Your task to perform on an android device: Go to notification settings Image 0: 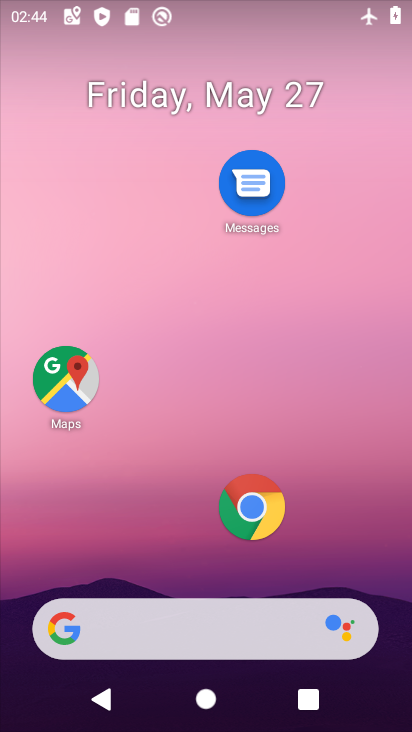
Step 0: drag from (195, 562) to (198, 86)
Your task to perform on an android device: Go to notification settings Image 1: 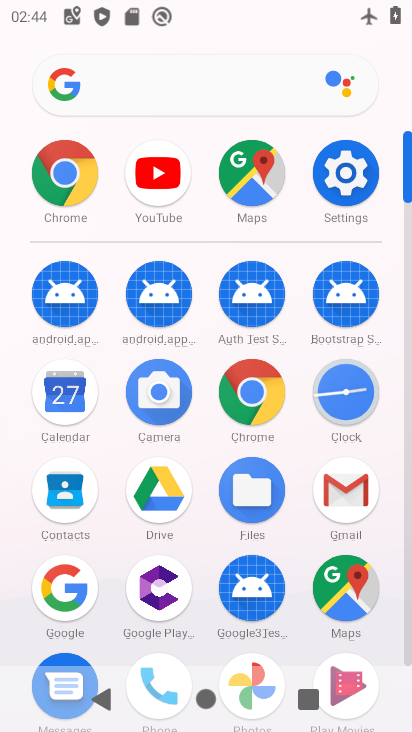
Step 1: drag from (198, 651) to (182, 212)
Your task to perform on an android device: Go to notification settings Image 2: 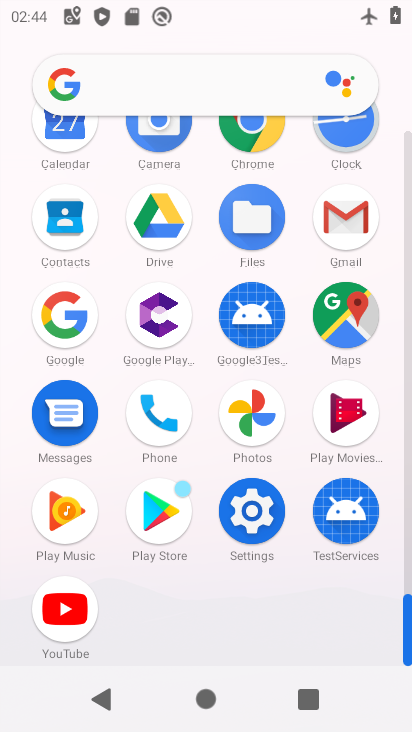
Step 2: click (244, 488)
Your task to perform on an android device: Go to notification settings Image 3: 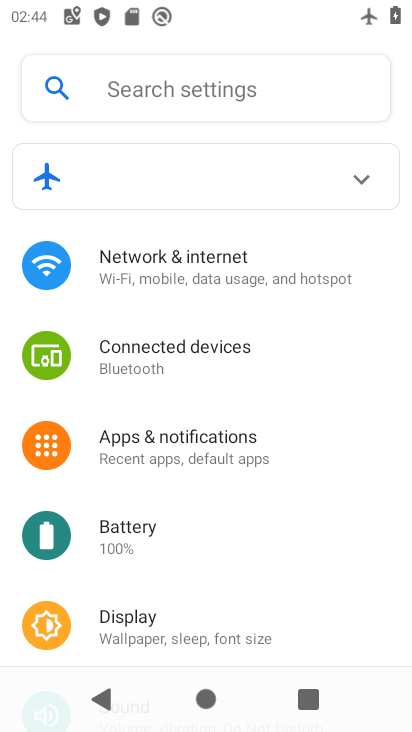
Step 3: drag from (222, 637) to (273, 145)
Your task to perform on an android device: Go to notification settings Image 4: 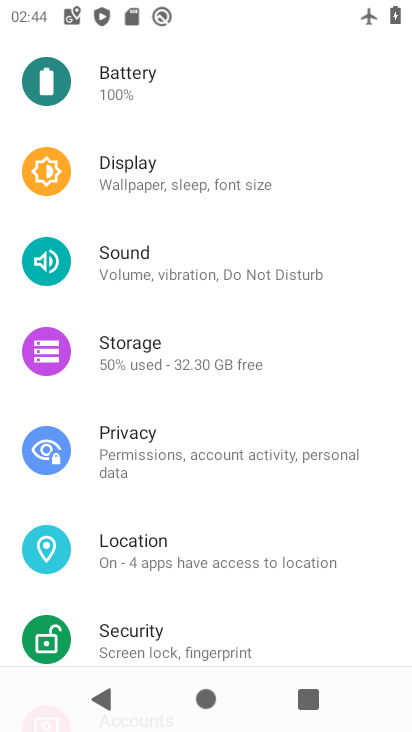
Step 4: drag from (170, 502) to (258, 65)
Your task to perform on an android device: Go to notification settings Image 5: 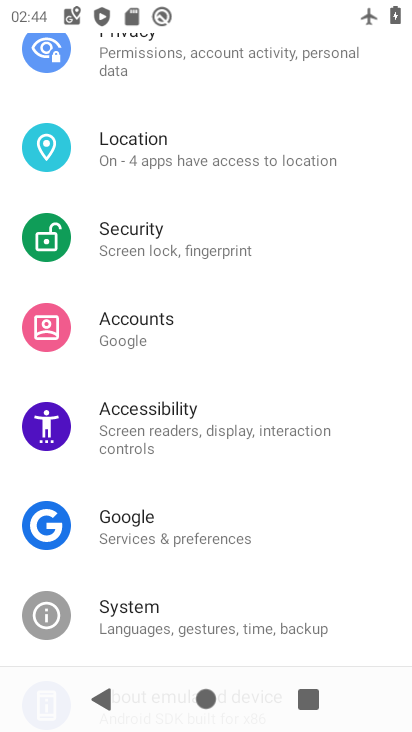
Step 5: drag from (213, 155) to (216, 656)
Your task to perform on an android device: Go to notification settings Image 6: 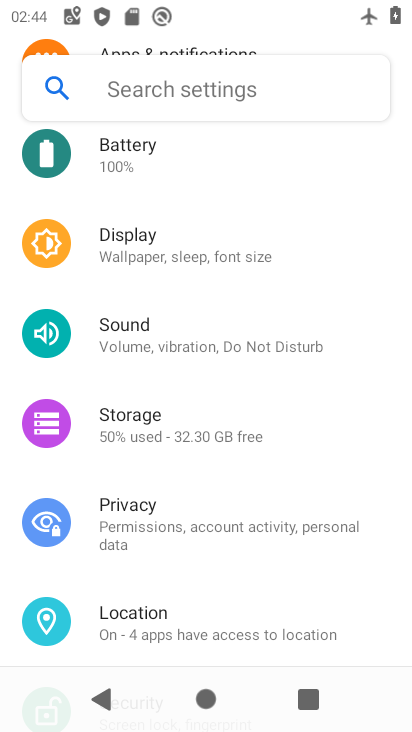
Step 6: drag from (133, 189) to (255, 617)
Your task to perform on an android device: Go to notification settings Image 7: 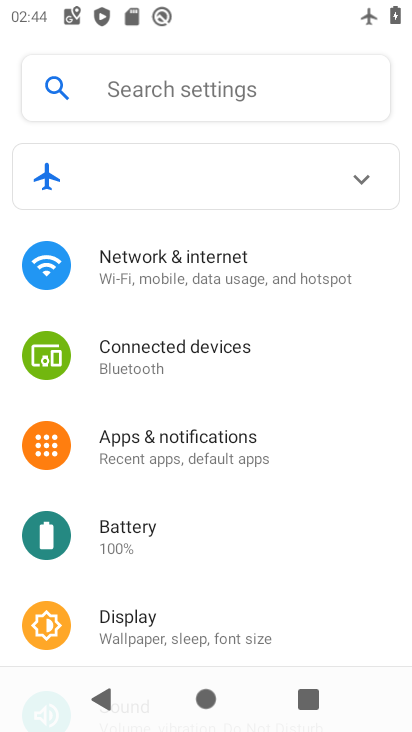
Step 7: click (177, 442)
Your task to perform on an android device: Go to notification settings Image 8: 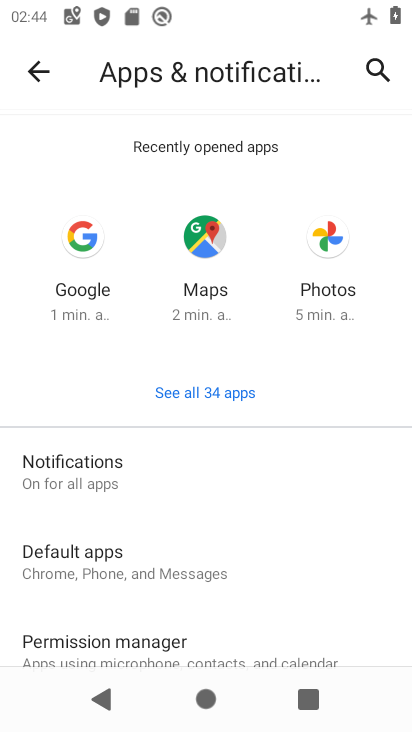
Step 8: click (116, 448)
Your task to perform on an android device: Go to notification settings Image 9: 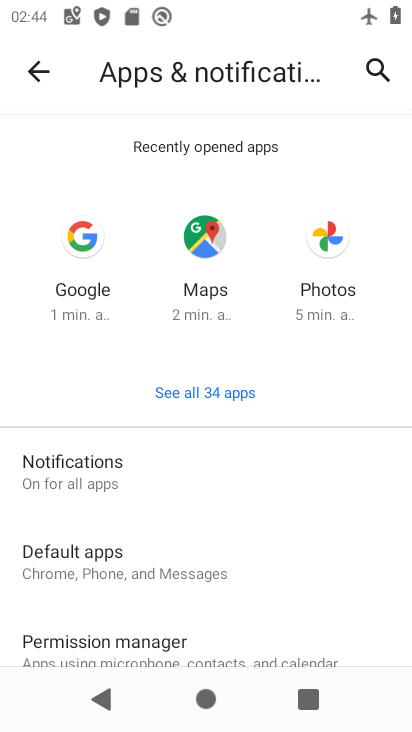
Step 9: click (116, 448)
Your task to perform on an android device: Go to notification settings Image 10: 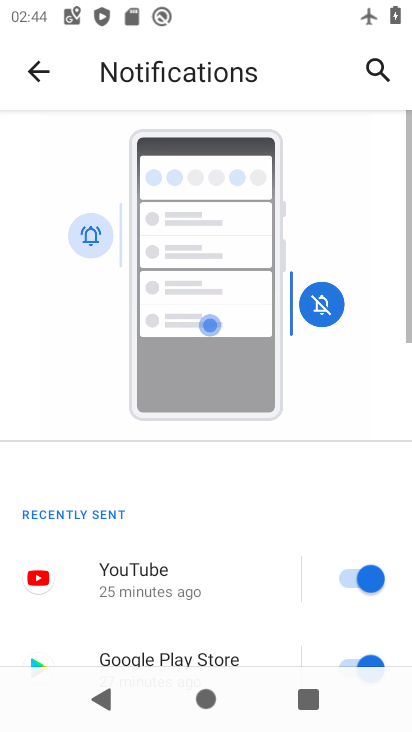
Step 10: drag from (148, 573) to (146, 229)
Your task to perform on an android device: Go to notification settings Image 11: 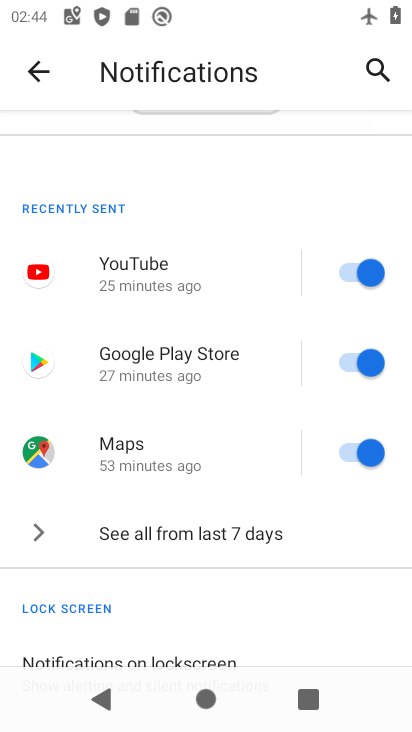
Step 11: drag from (220, 536) to (212, 104)
Your task to perform on an android device: Go to notification settings Image 12: 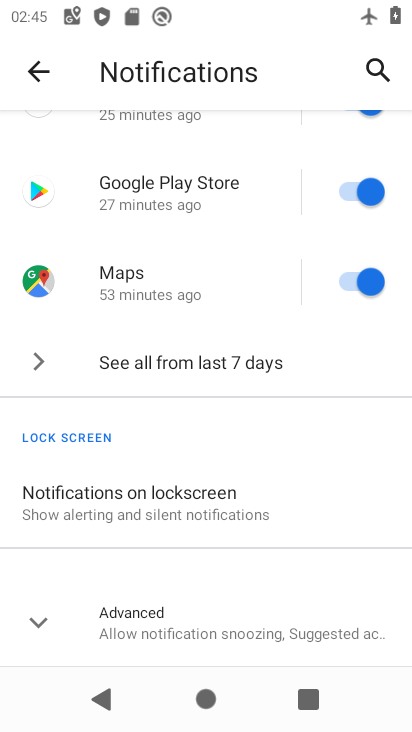
Step 12: drag from (184, 569) to (202, 187)
Your task to perform on an android device: Go to notification settings Image 13: 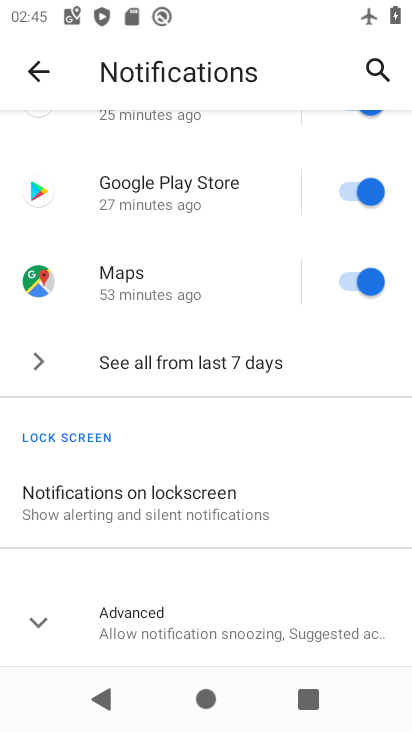
Step 13: click (168, 614)
Your task to perform on an android device: Go to notification settings Image 14: 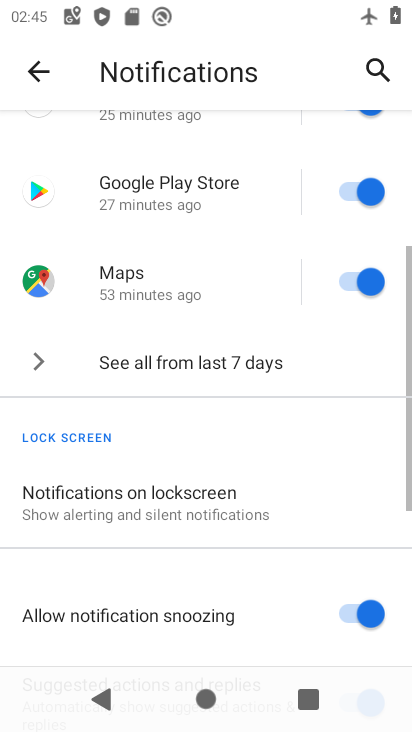
Step 14: drag from (181, 618) to (215, 200)
Your task to perform on an android device: Go to notification settings Image 15: 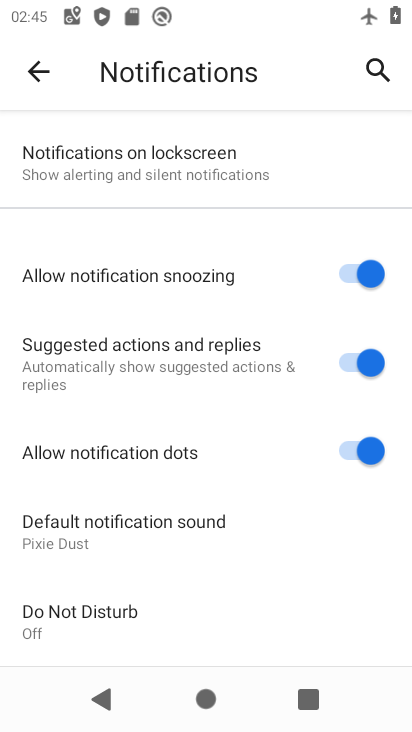
Step 15: drag from (239, 514) to (238, 313)
Your task to perform on an android device: Go to notification settings Image 16: 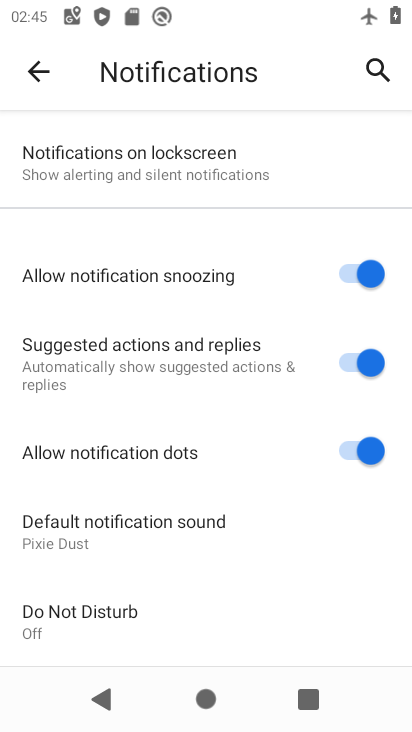
Step 16: drag from (183, 607) to (190, 236)
Your task to perform on an android device: Go to notification settings Image 17: 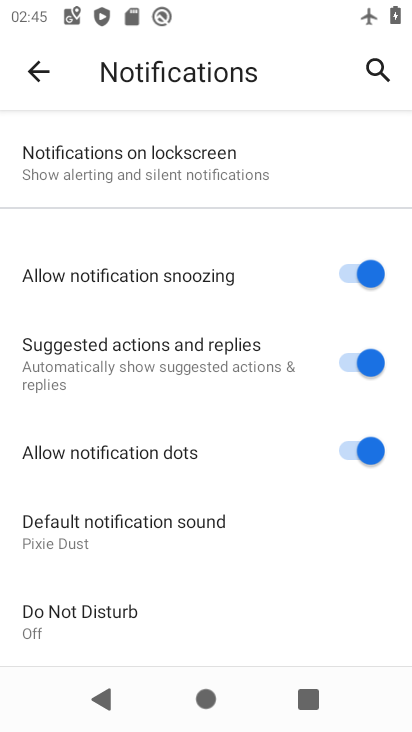
Step 17: drag from (196, 261) to (289, 639)
Your task to perform on an android device: Go to notification settings Image 18: 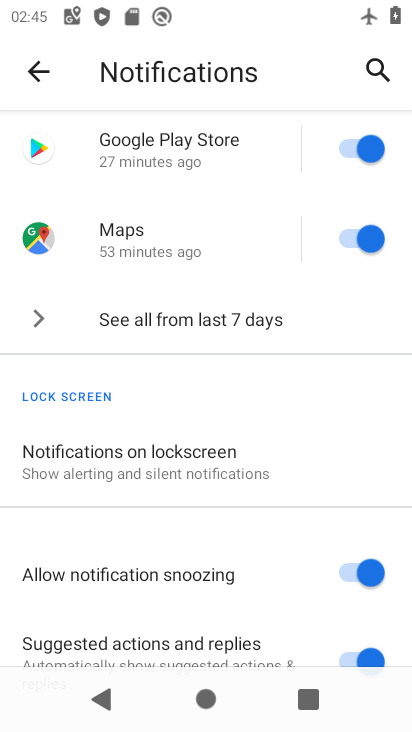
Step 18: click (364, 235)
Your task to perform on an android device: Go to notification settings Image 19: 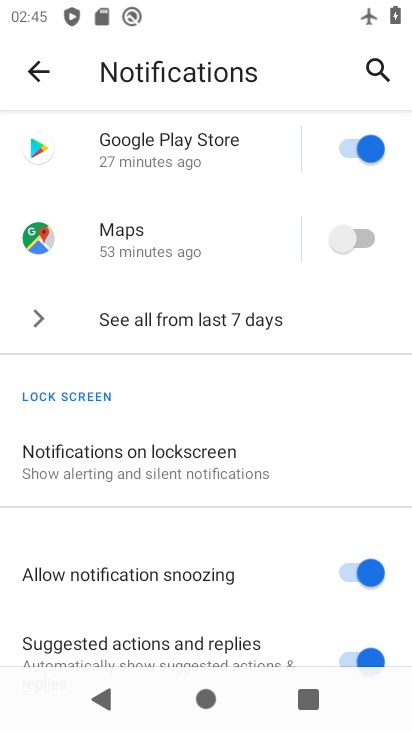
Step 19: task complete